Your task to perform on an android device: turn notification dots on Image 0: 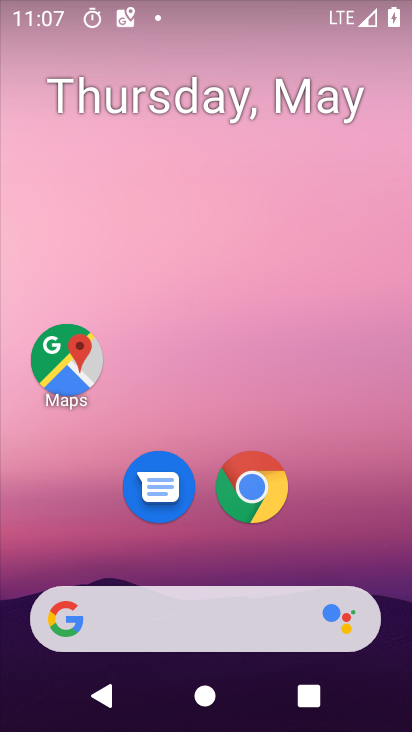
Step 0: drag from (236, 565) to (247, 3)
Your task to perform on an android device: turn notification dots on Image 1: 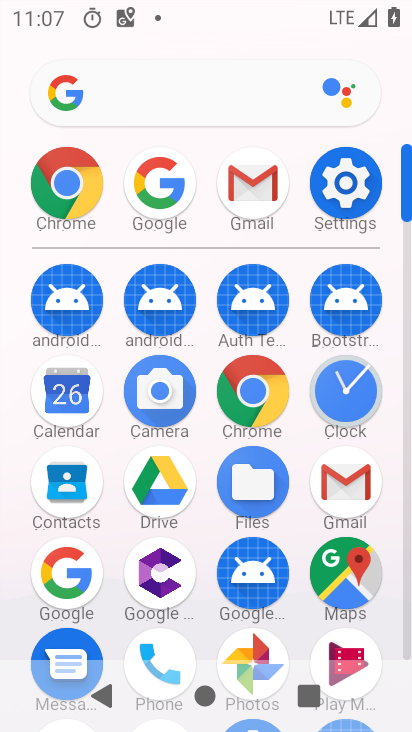
Step 1: click (357, 167)
Your task to perform on an android device: turn notification dots on Image 2: 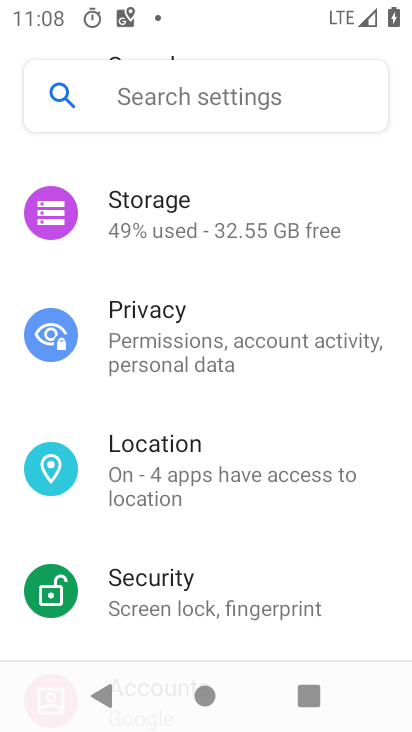
Step 2: drag from (240, 362) to (153, 718)
Your task to perform on an android device: turn notification dots on Image 3: 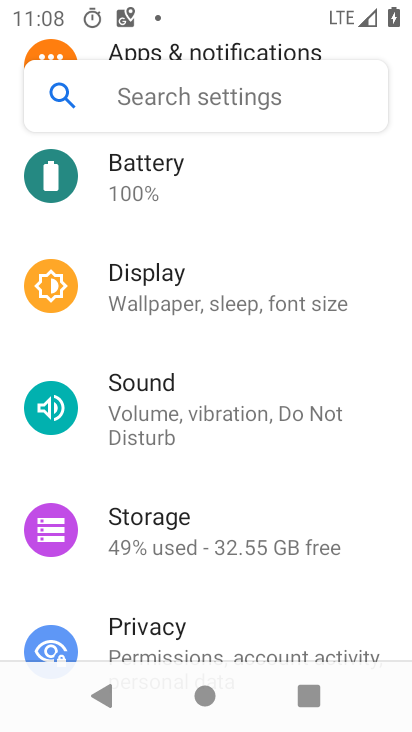
Step 3: drag from (200, 311) to (204, 614)
Your task to perform on an android device: turn notification dots on Image 4: 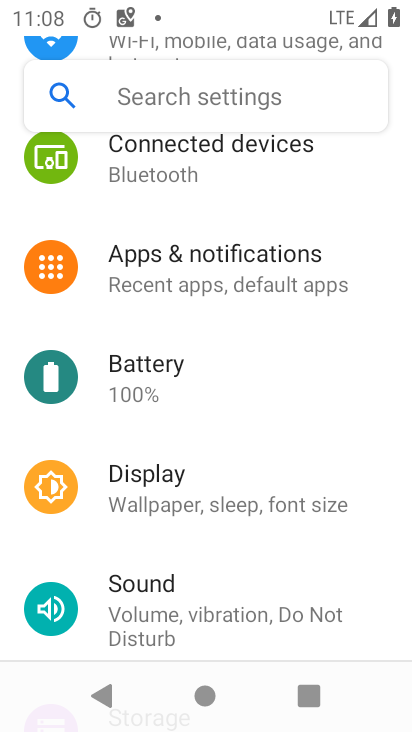
Step 4: click (252, 271)
Your task to perform on an android device: turn notification dots on Image 5: 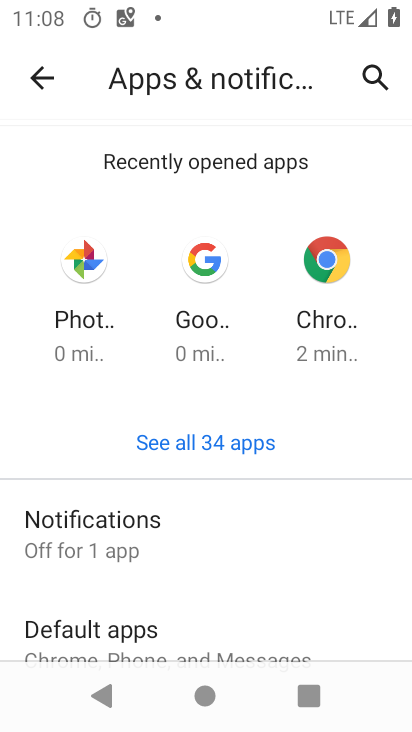
Step 5: click (188, 534)
Your task to perform on an android device: turn notification dots on Image 6: 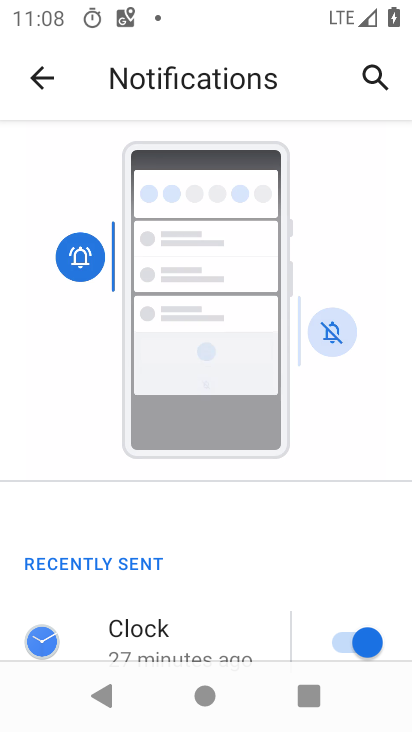
Step 6: drag from (230, 574) to (261, 247)
Your task to perform on an android device: turn notification dots on Image 7: 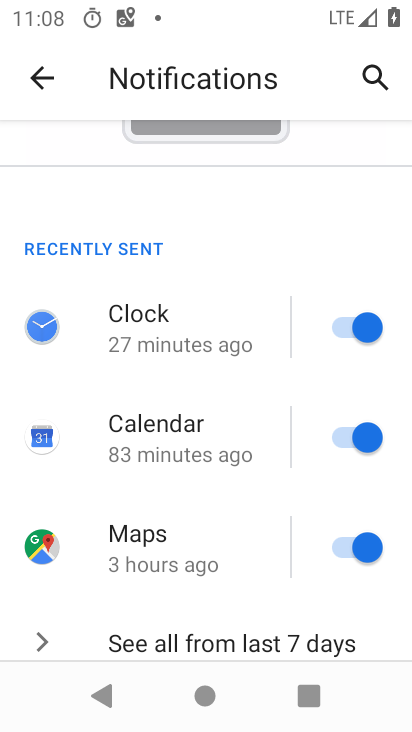
Step 7: drag from (211, 530) to (201, 283)
Your task to perform on an android device: turn notification dots on Image 8: 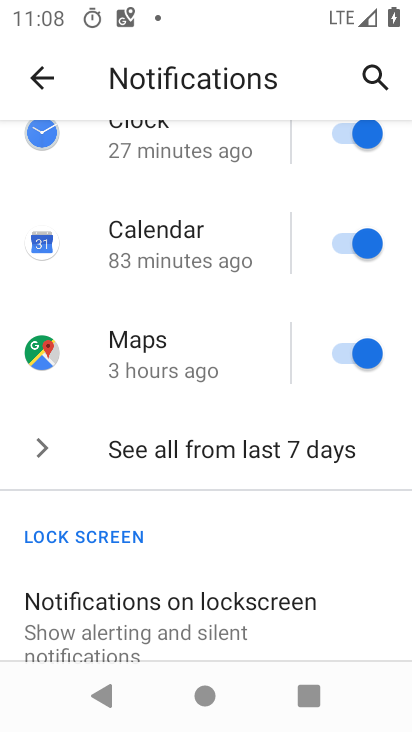
Step 8: drag from (216, 586) to (300, 76)
Your task to perform on an android device: turn notification dots on Image 9: 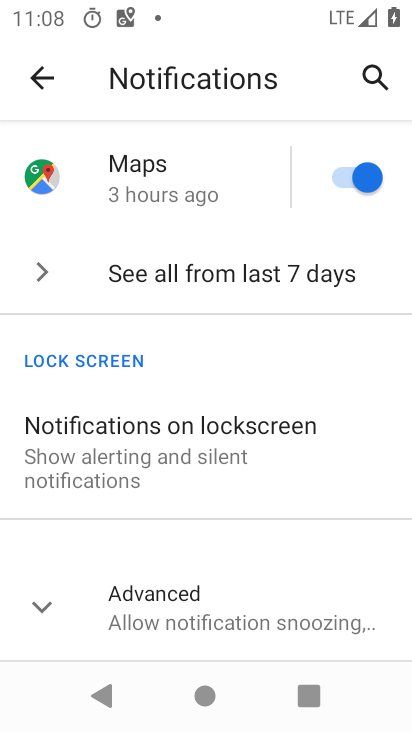
Step 9: click (241, 629)
Your task to perform on an android device: turn notification dots on Image 10: 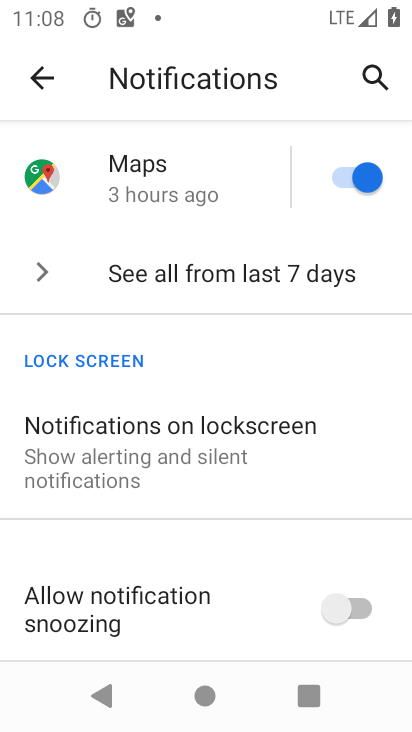
Step 10: drag from (226, 562) to (237, 184)
Your task to perform on an android device: turn notification dots on Image 11: 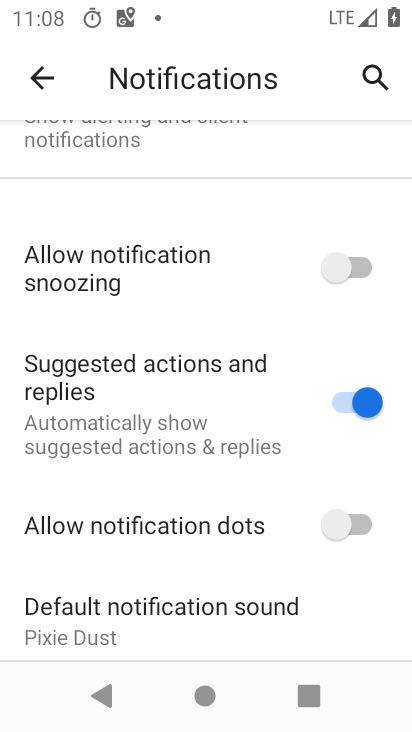
Step 11: drag from (191, 549) to (218, 189)
Your task to perform on an android device: turn notification dots on Image 12: 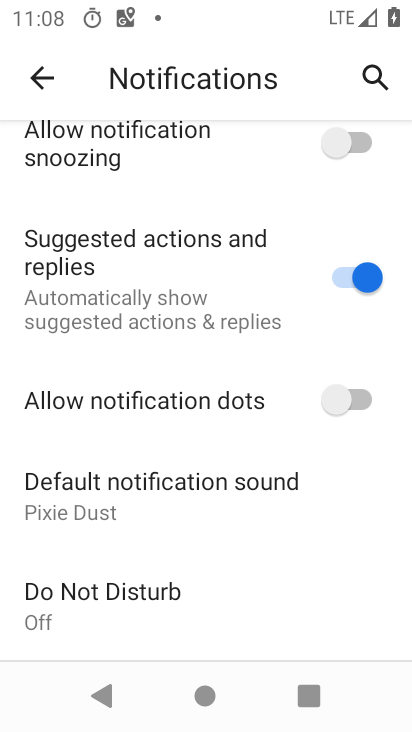
Step 12: click (229, 404)
Your task to perform on an android device: turn notification dots on Image 13: 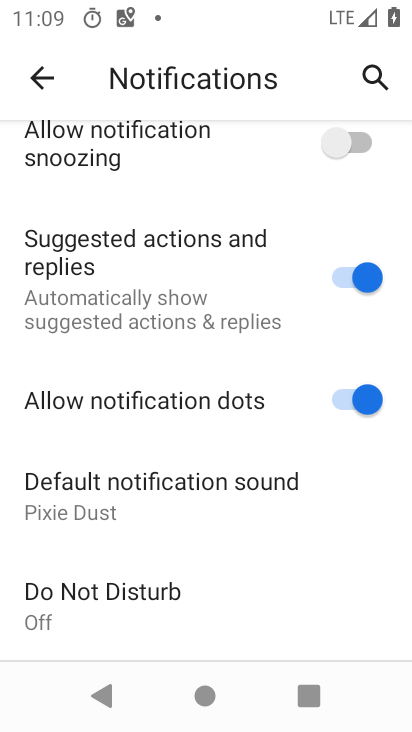
Step 13: task complete